Your task to perform on an android device: empty trash in google photos Image 0: 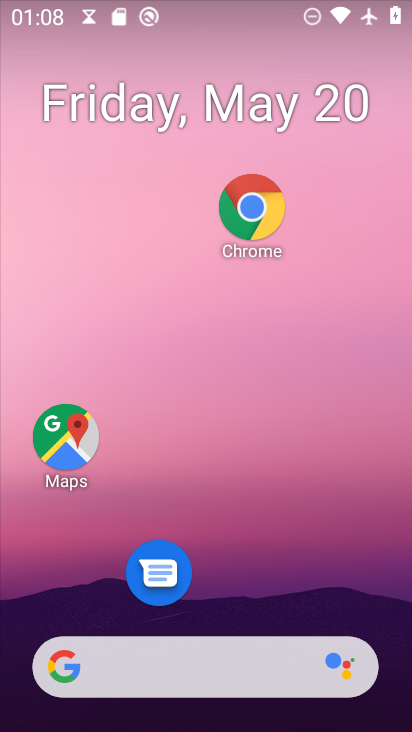
Step 0: drag from (301, 595) to (329, 67)
Your task to perform on an android device: empty trash in google photos Image 1: 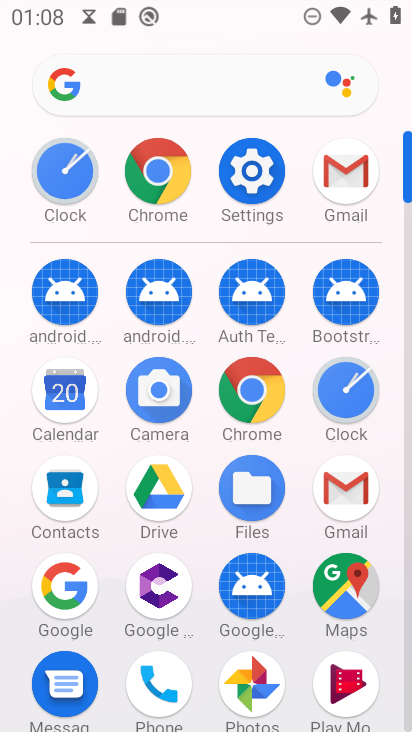
Step 1: click (248, 682)
Your task to perform on an android device: empty trash in google photos Image 2: 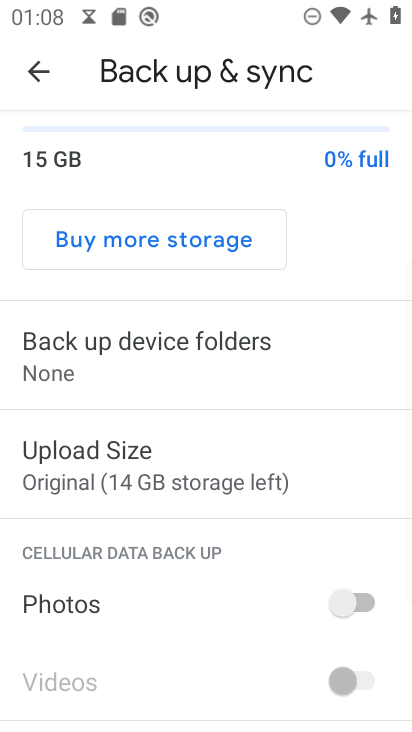
Step 2: click (42, 77)
Your task to perform on an android device: empty trash in google photos Image 3: 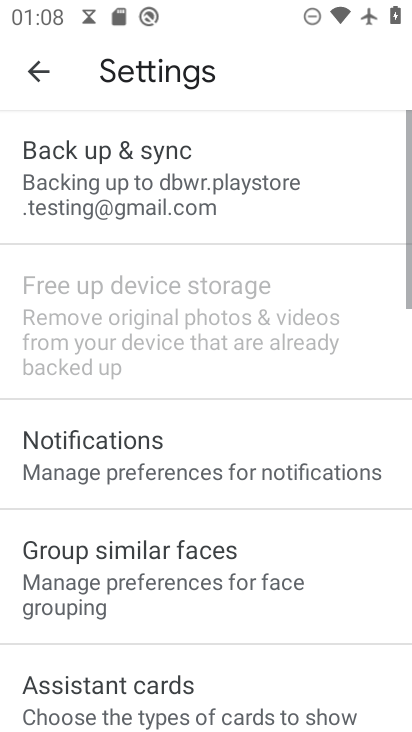
Step 3: click (42, 77)
Your task to perform on an android device: empty trash in google photos Image 4: 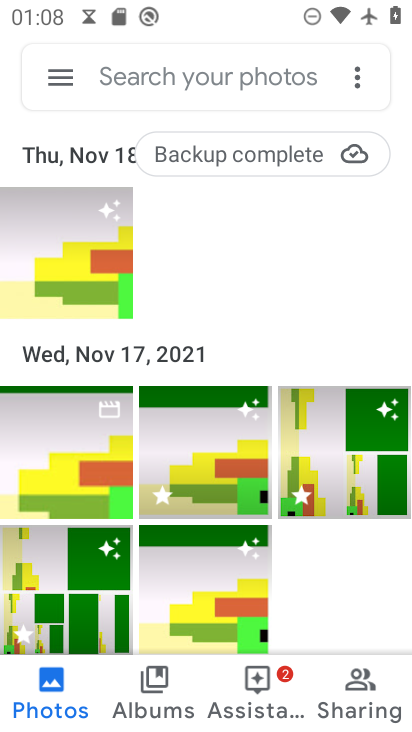
Step 4: click (42, 77)
Your task to perform on an android device: empty trash in google photos Image 5: 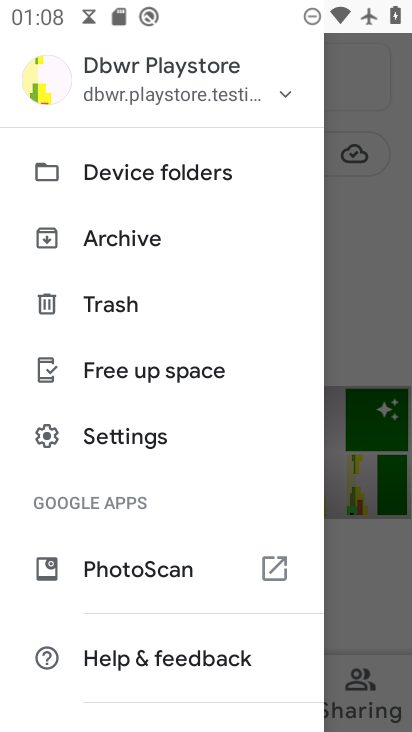
Step 5: click (117, 311)
Your task to perform on an android device: empty trash in google photos Image 6: 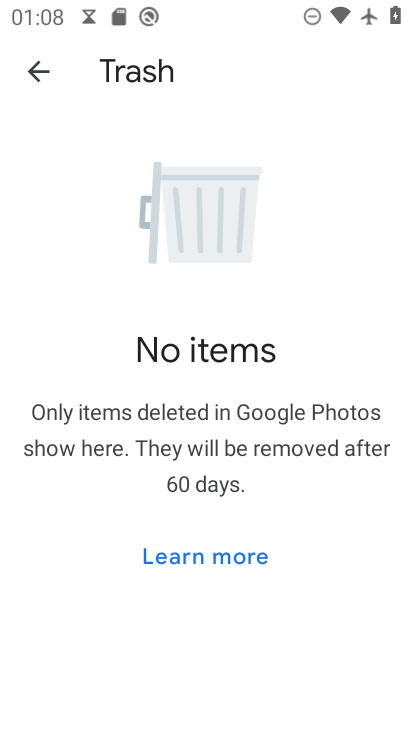
Step 6: task complete